Your task to perform on an android device: open app "eBay: The shopping marketplace" (install if not already installed) Image 0: 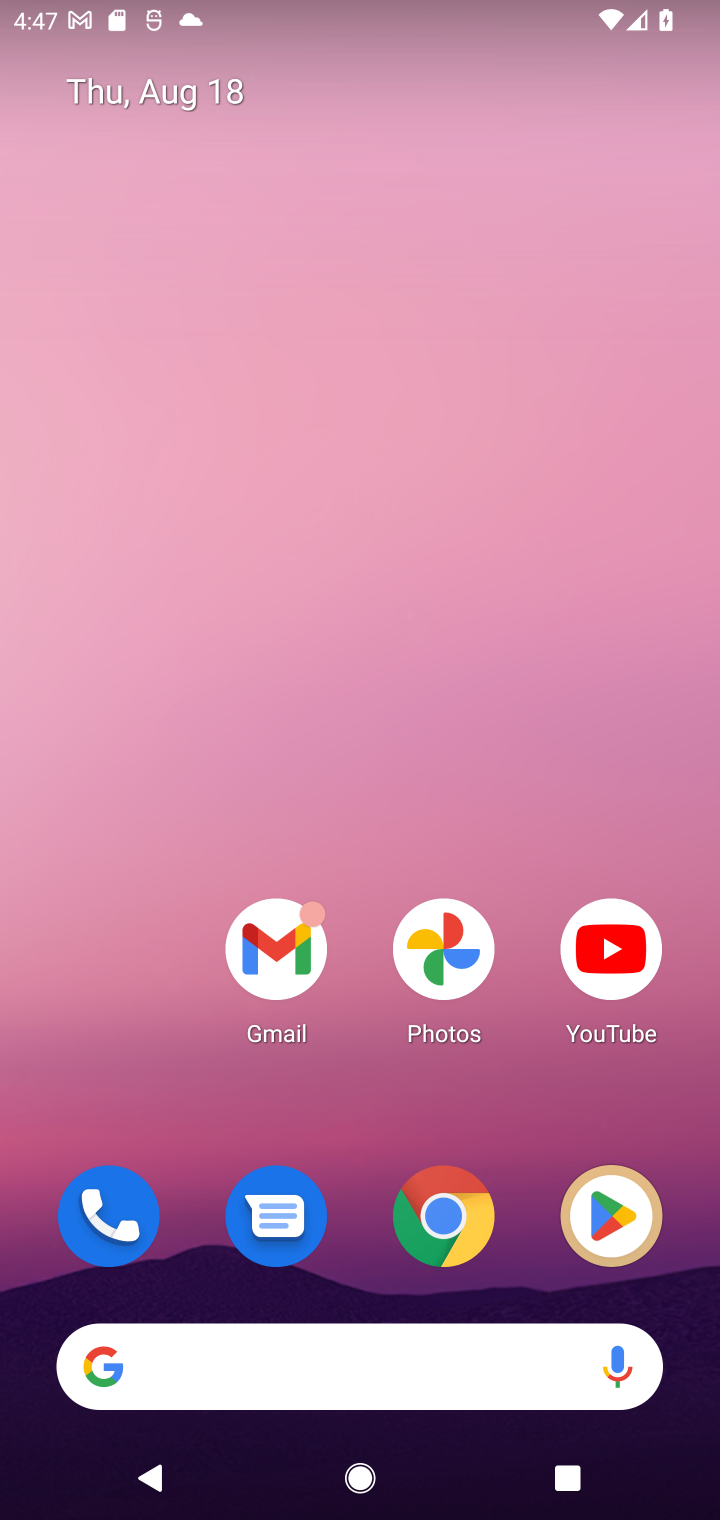
Step 0: click (614, 1214)
Your task to perform on an android device: open app "eBay: The shopping marketplace" (install if not already installed) Image 1: 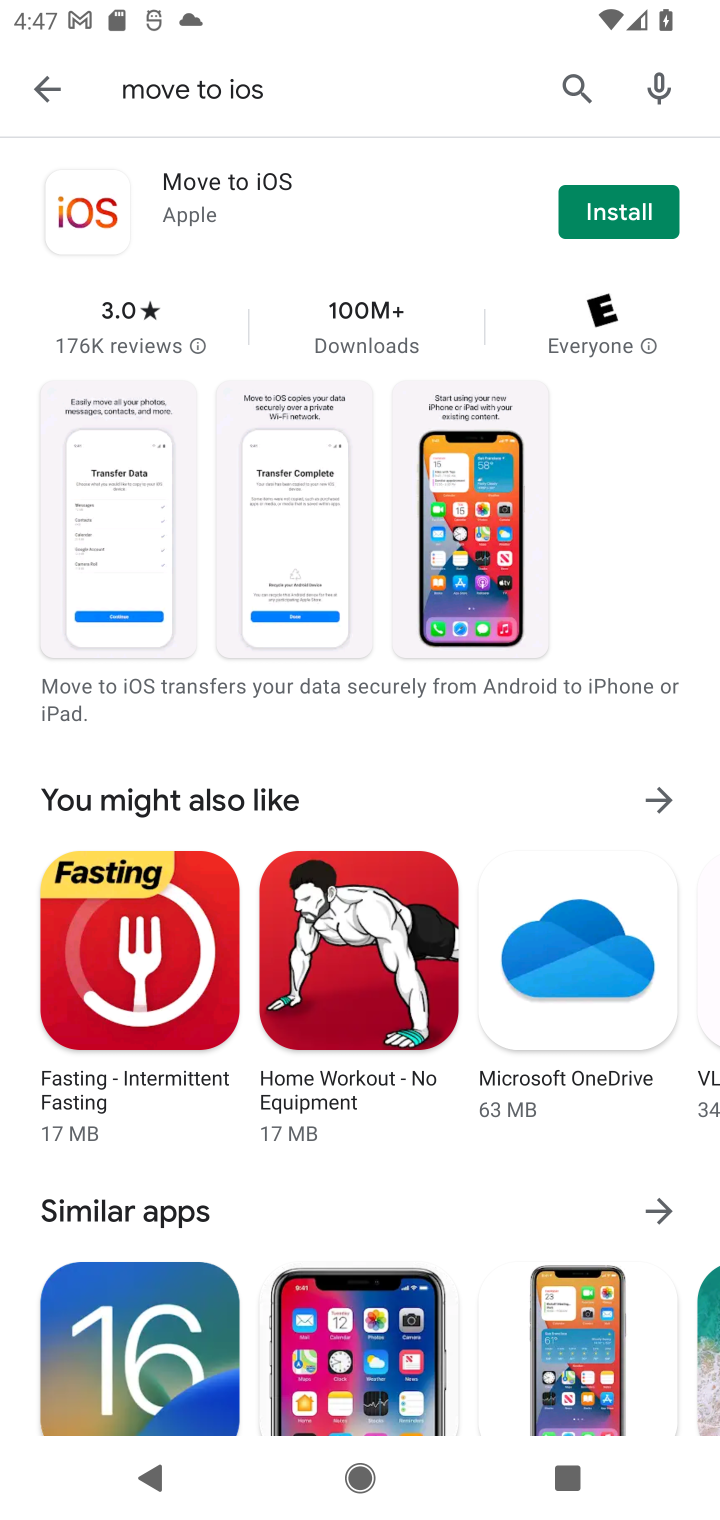
Step 1: click (575, 91)
Your task to perform on an android device: open app "eBay: The shopping marketplace" (install if not already installed) Image 2: 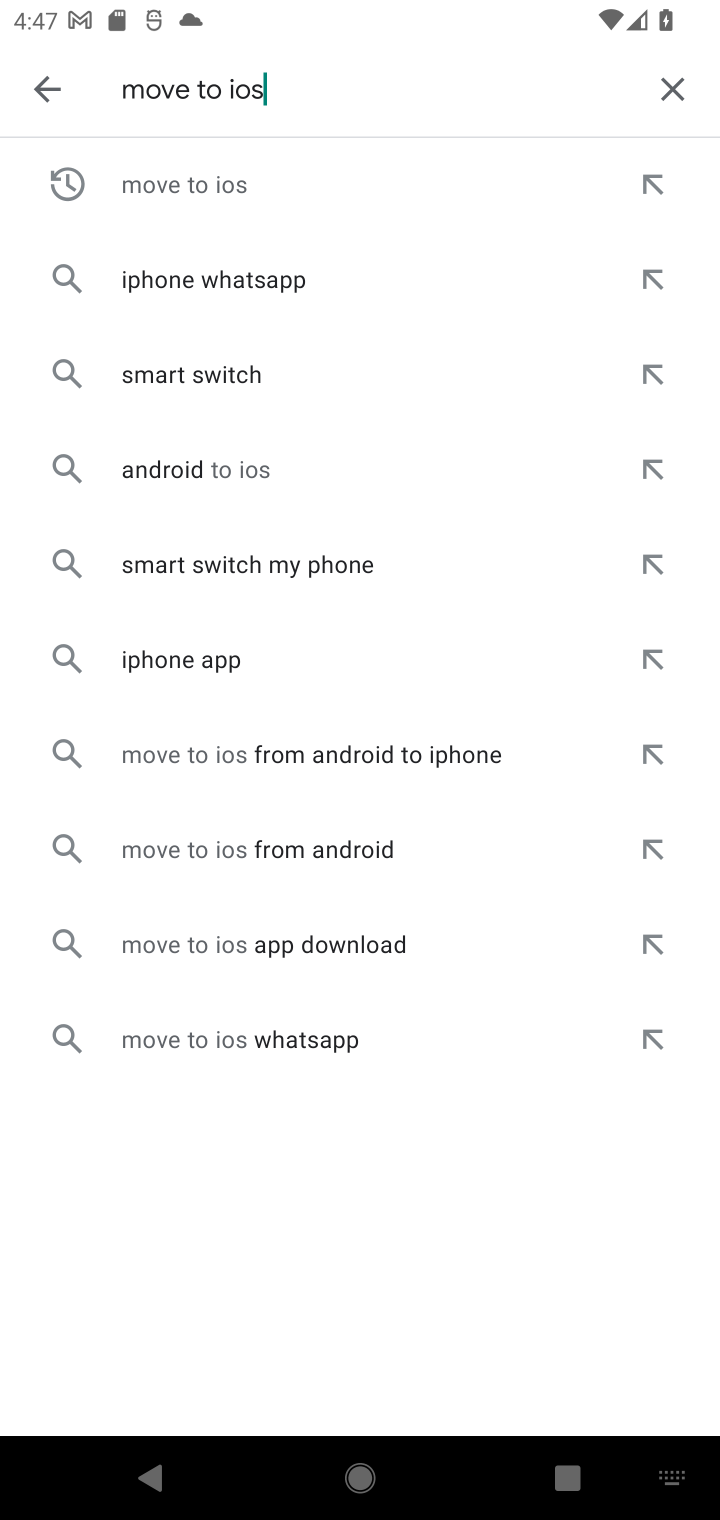
Step 2: click (665, 85)
Your task to perform on an android device: open app "eBay: The shopping marketplace" (install if not already installed) Image 3: 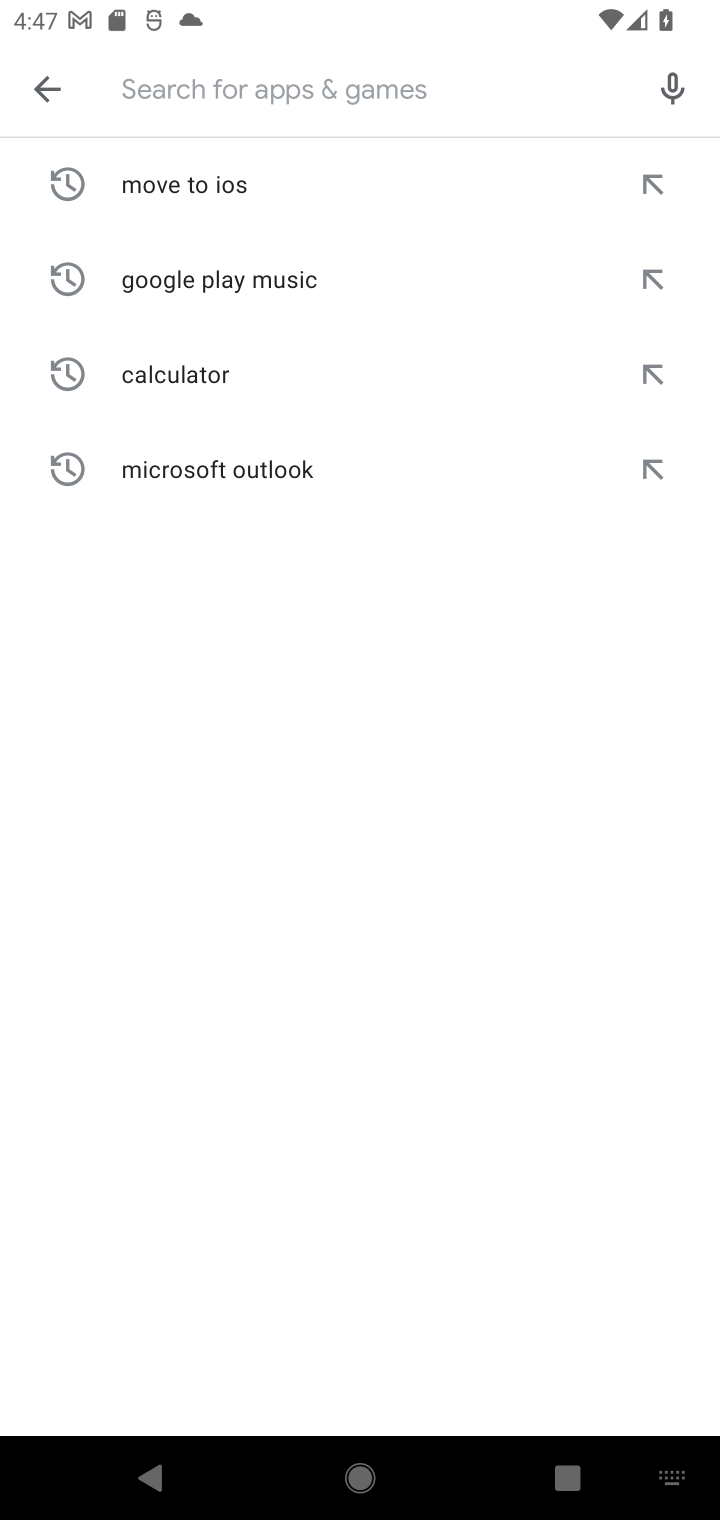
Step 3: type "eBay: The shopping marketplace"
Your task to perform on an android device: open app "eBay: The shopping marketplace" (install if not already installed) Image 4: 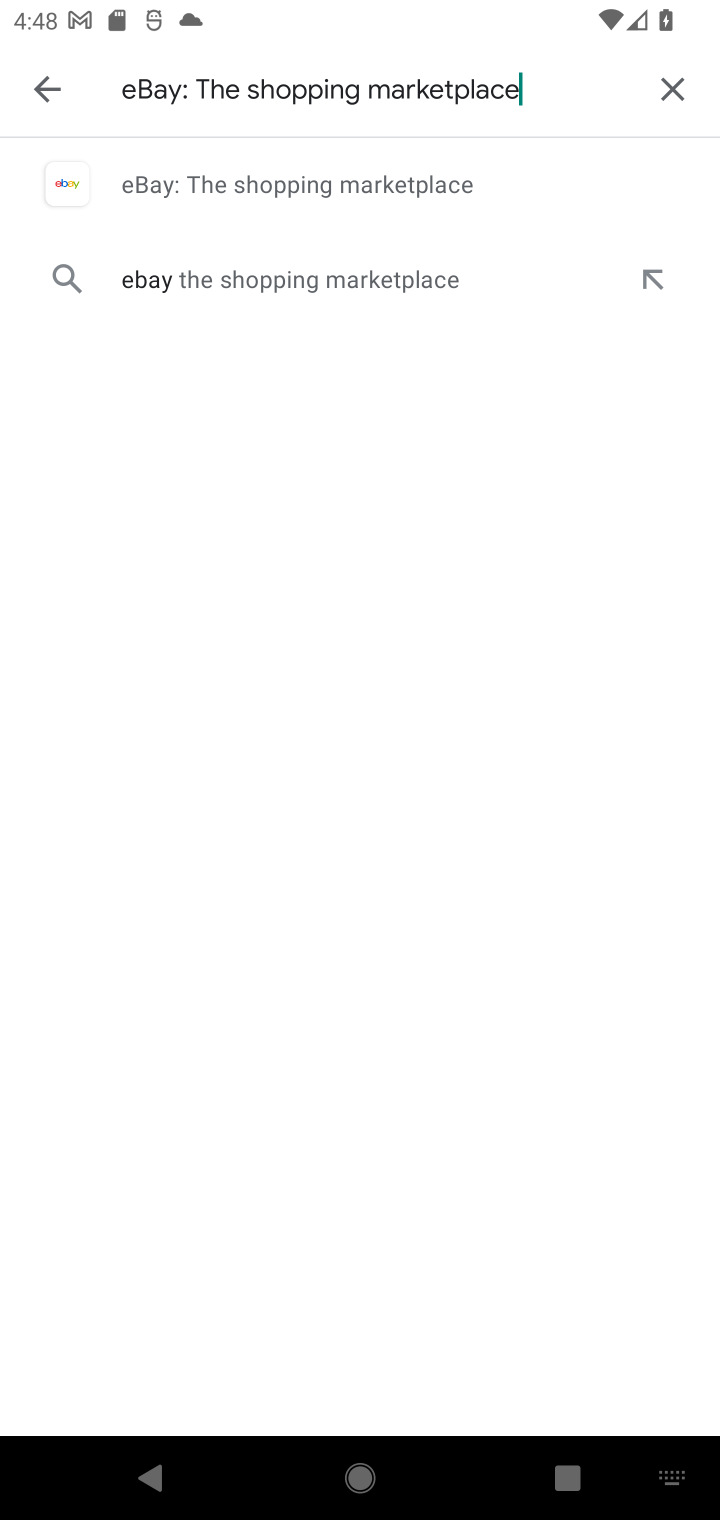
Step 4: click (197, 170)
Your task to perform on an android device: open app "eBay: The shopping marketplace" (install if not already installed) Image 5: 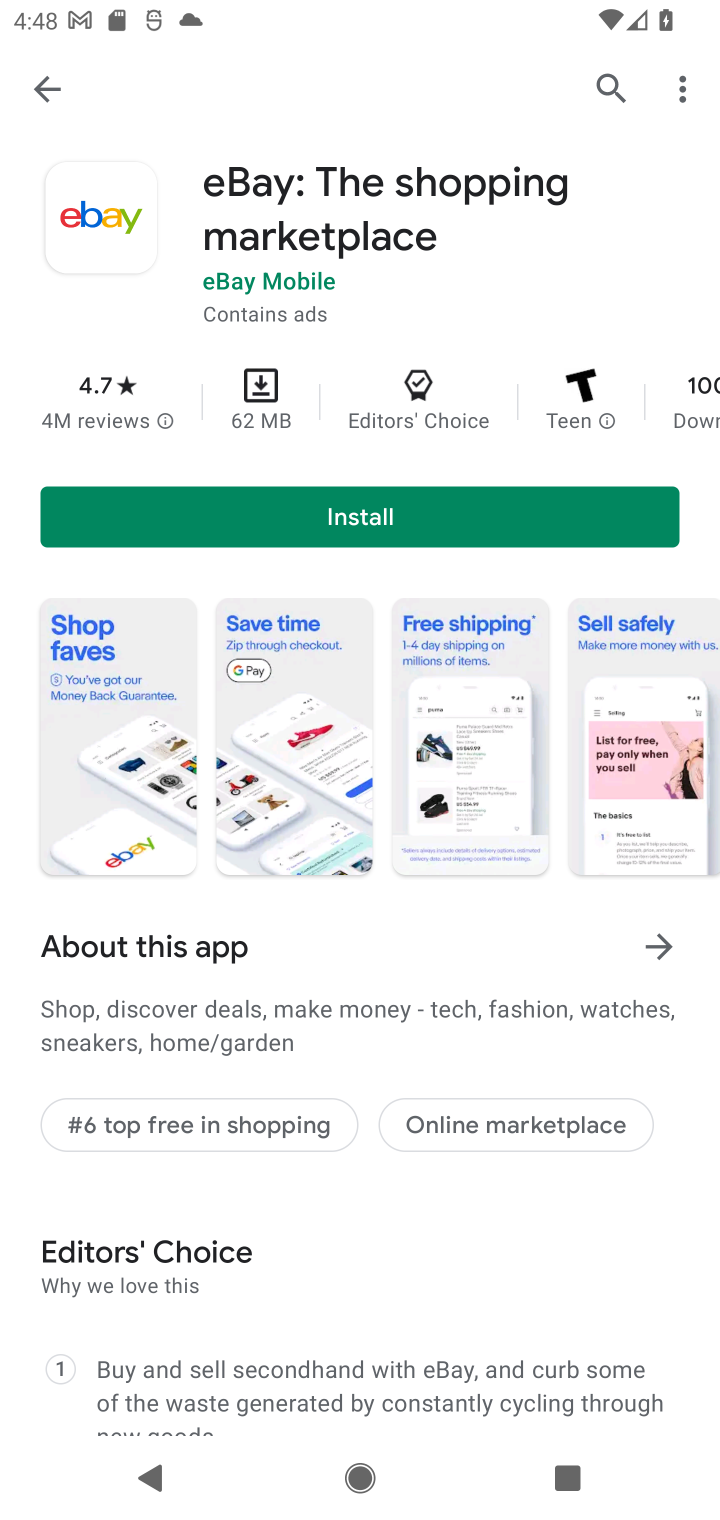
Step 5: click (349, 515)
Your task to perform on an android device: open app "eBay: The shopping marketplace" (install if not already installed) Image 6: 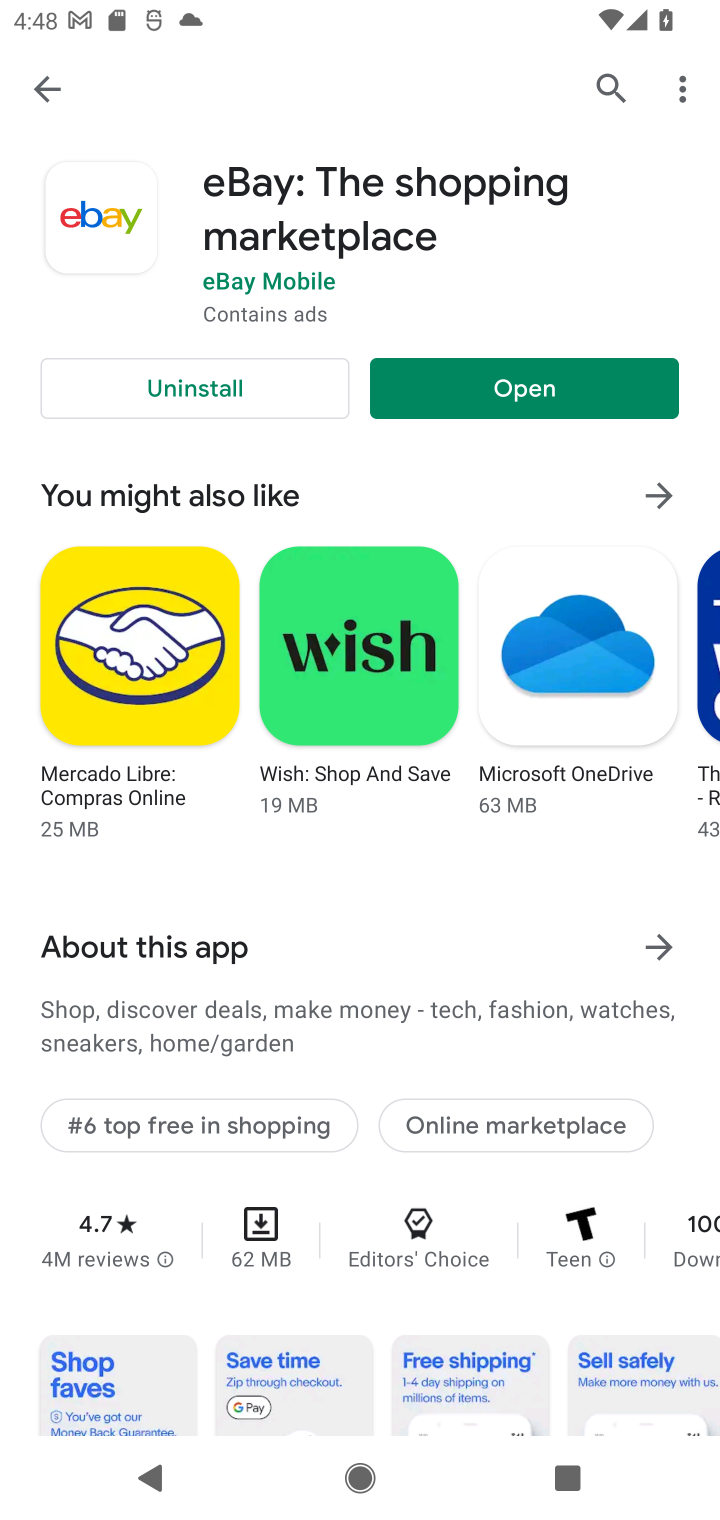
Step 6: click (521, 382)
Your task to perform on an android device: open app "eBay: The shopping marketplace" (install if not already installed) Image 7: 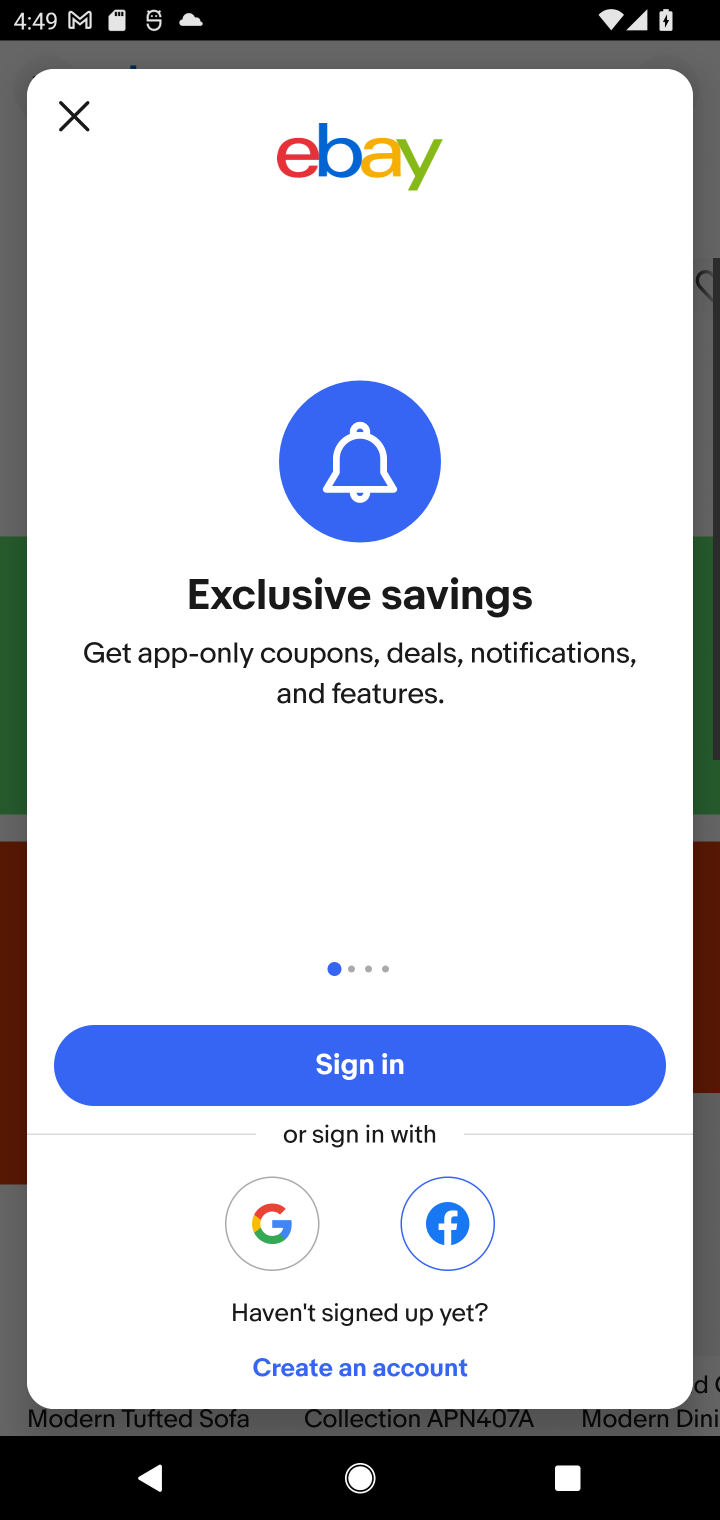
Step 7: task complete